Your task to perform on an android device: open a bookmark in the chrome app Image 0: 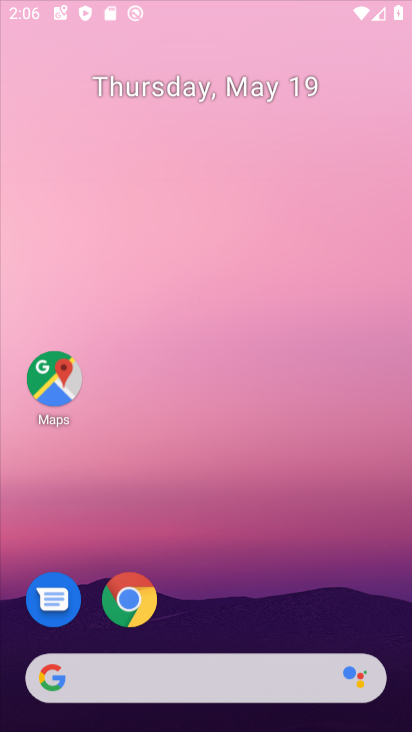
Step 0: click (252, 187)
Your task to perform on an android device: open a bookmark in the chrome app Image 1: 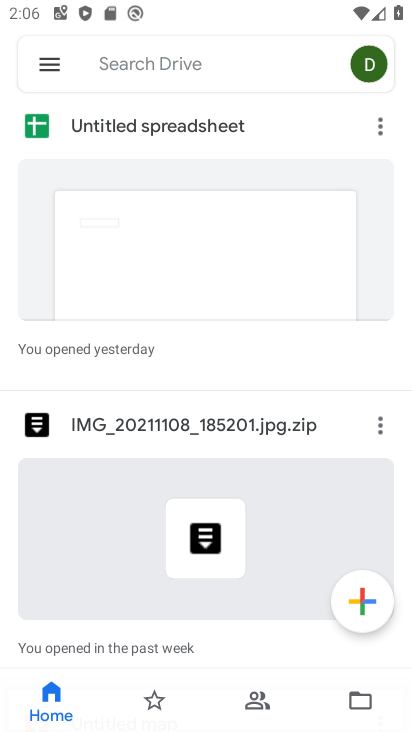
Step 1: press home button
Your task to perform on an android device: open a bookmark in the chrome app Image 2: 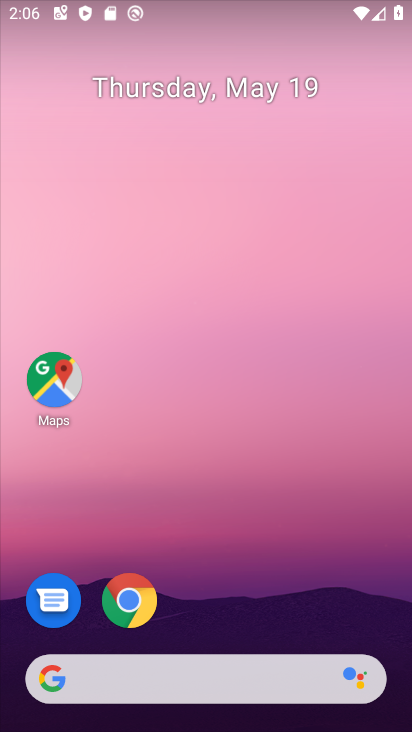
Step 2: click (132, 603)
Your task to perform on an android device: open a bookmark in the chrome app Image 3: 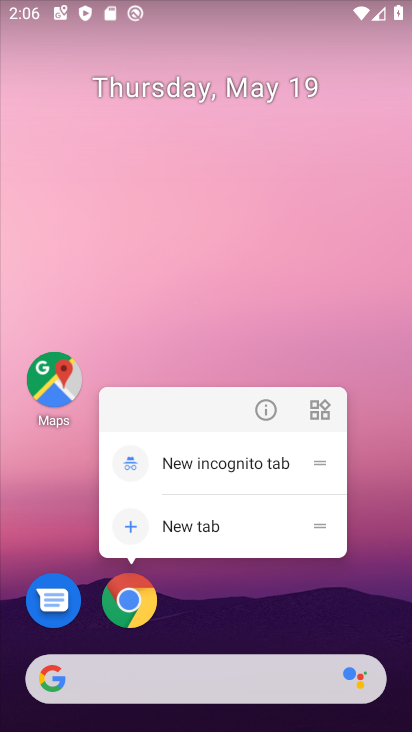
Step 3: click (132, 603)
Your task to perform on an android device: open a bookmark in the chrome app Image 4: 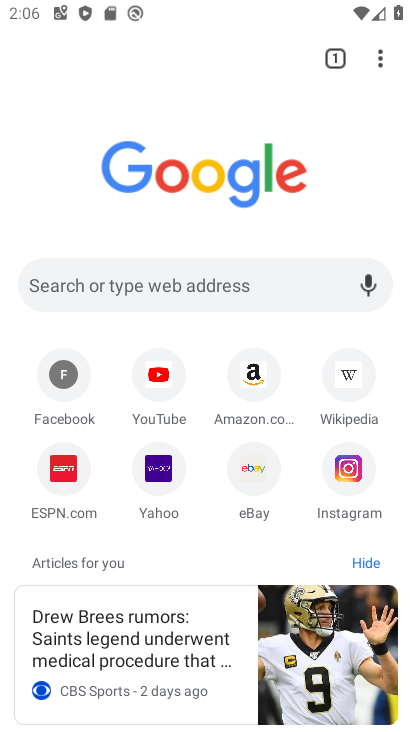
Step 4: click (378, 59)
Your task to perform on an android device: open a bookmark in the chrome app Image 5: 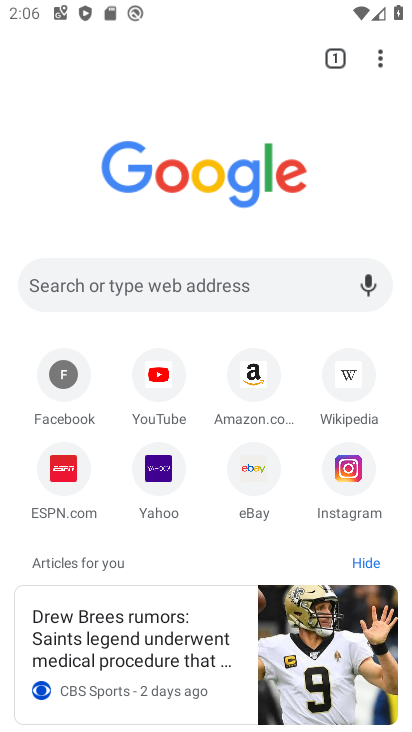
Step 5: click (384, 61)
Your task to perform on an android device: open a bookmark in the chrome app Image 6: 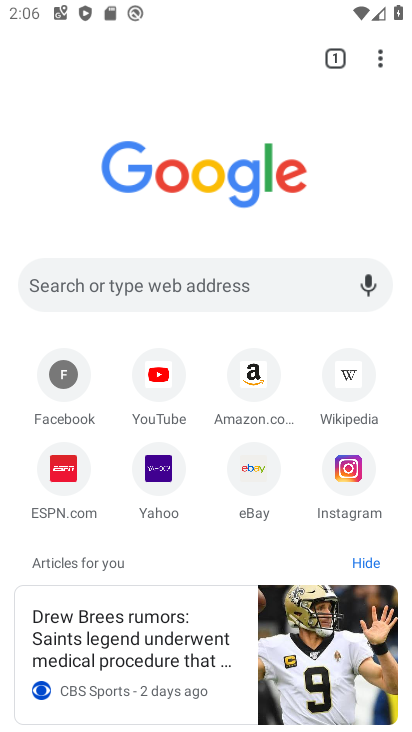
Step 6: click (384, 61)
Your task to perform on an android device: open a bookmark in the chrome app Image 7: 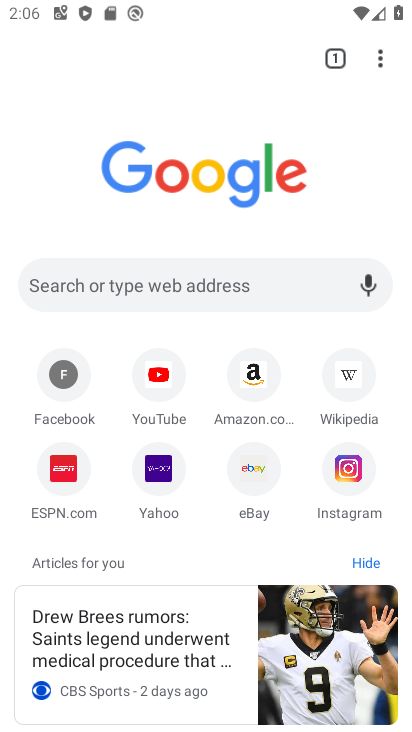
Step 7: click (379, 57)
Your task to perform on an android device: open a bookmark in the chrome app Image 8: 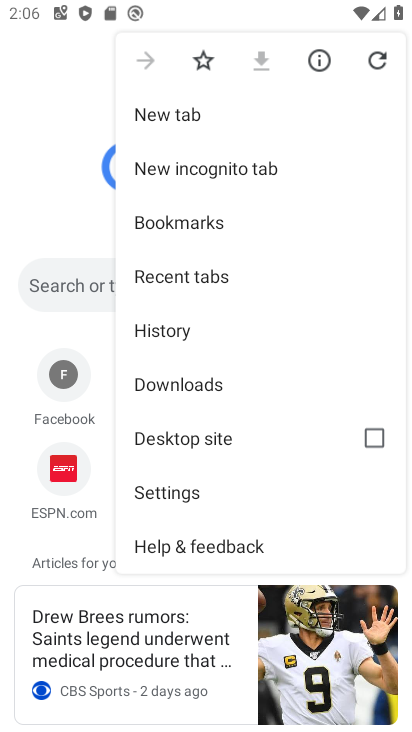
Step 8: click (183, 217)
Your task to perform on an android device: open a bookmark in the chrome app Image 9: 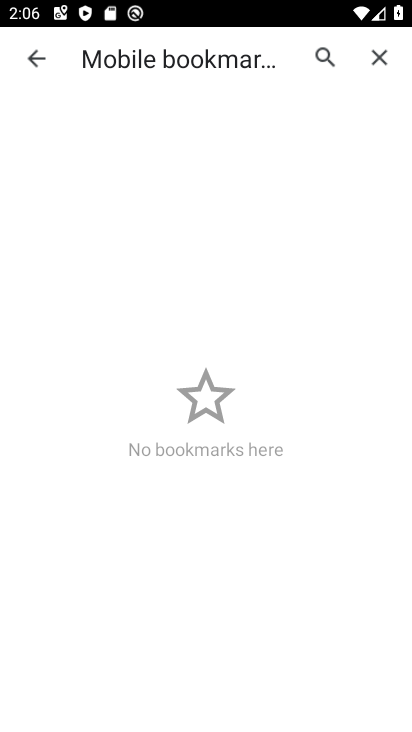
Step 9: task complete